Your task to perform on an android device: Go to battery settings Image 0: 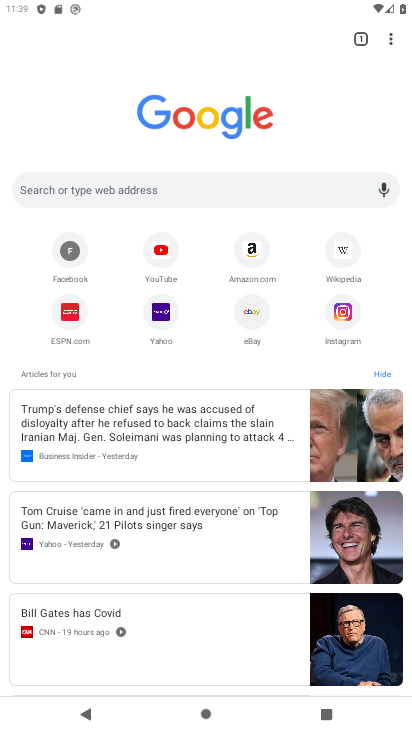
Step 0: press back button
Your task to perform on an android device: Go to battery settings Image 1: 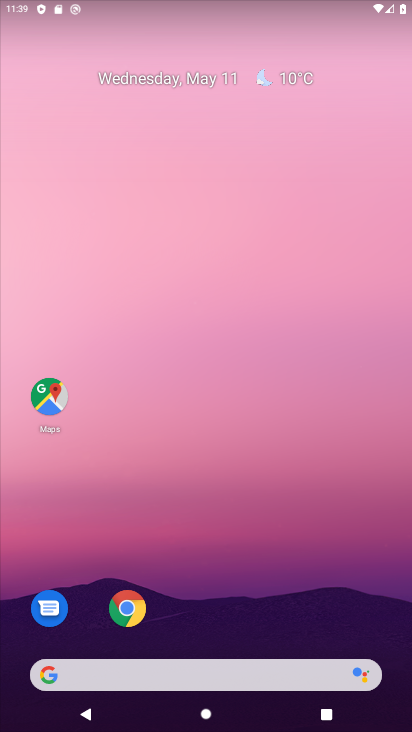
Step 1: drag from (260, 603) to (226, 113)
Your task to perform on an android device: Go to battery settings Image 2: 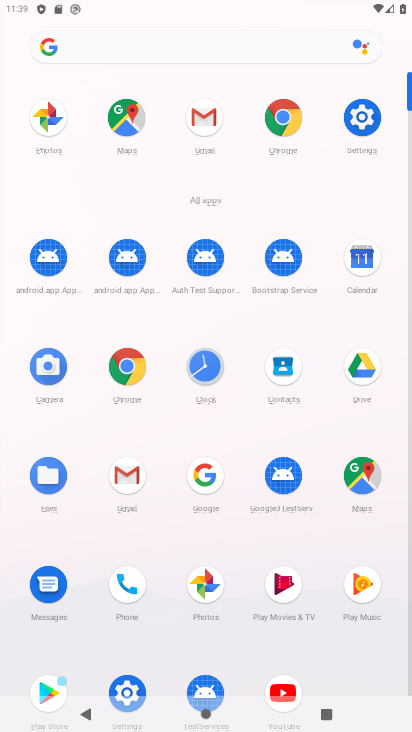
Step 2: click (364, 115)
Your task to perform on an android device: Go to battery settings Image 3: 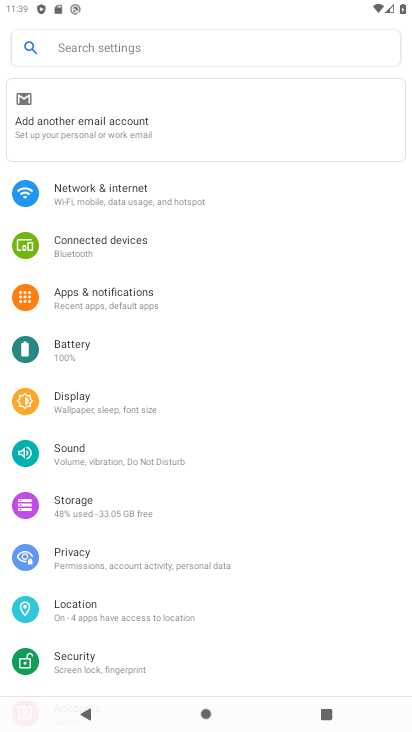
Step 3: click (84, 347)
Your task to perform on an android device: Go to battery settings Image 4: 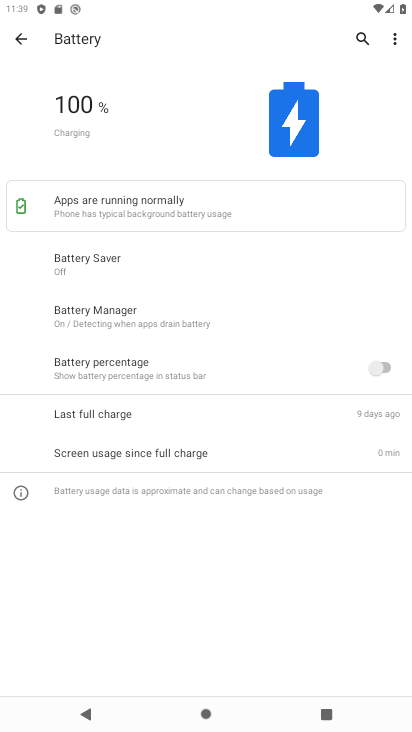
Step 4: task complete